Your task to perform on an android device: open app "Truecaller" Image 0: 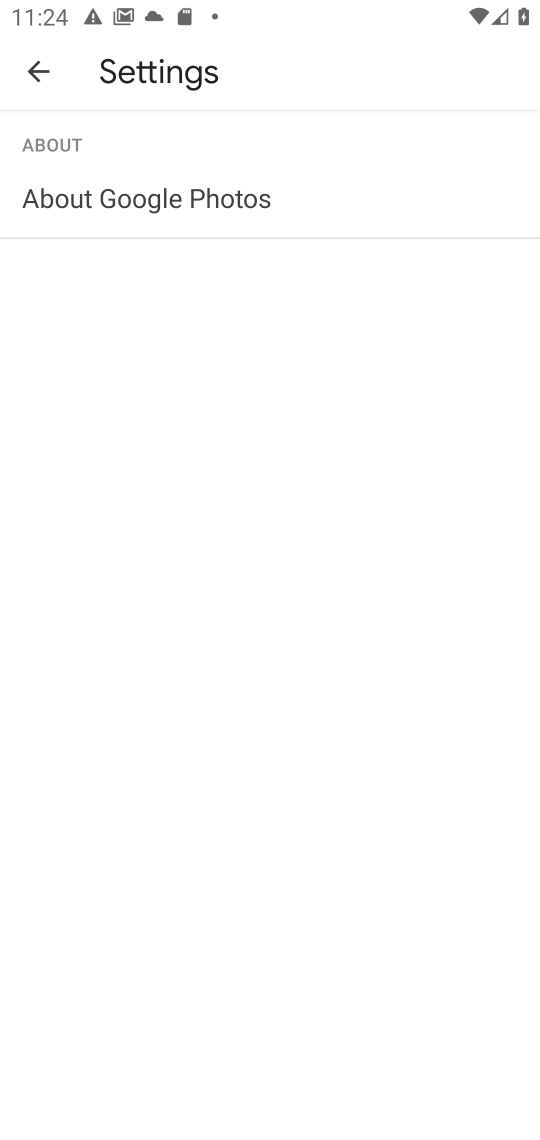
Step 0: press home button
Your task to perform on an android device: open app "Truecaller" Image 1: 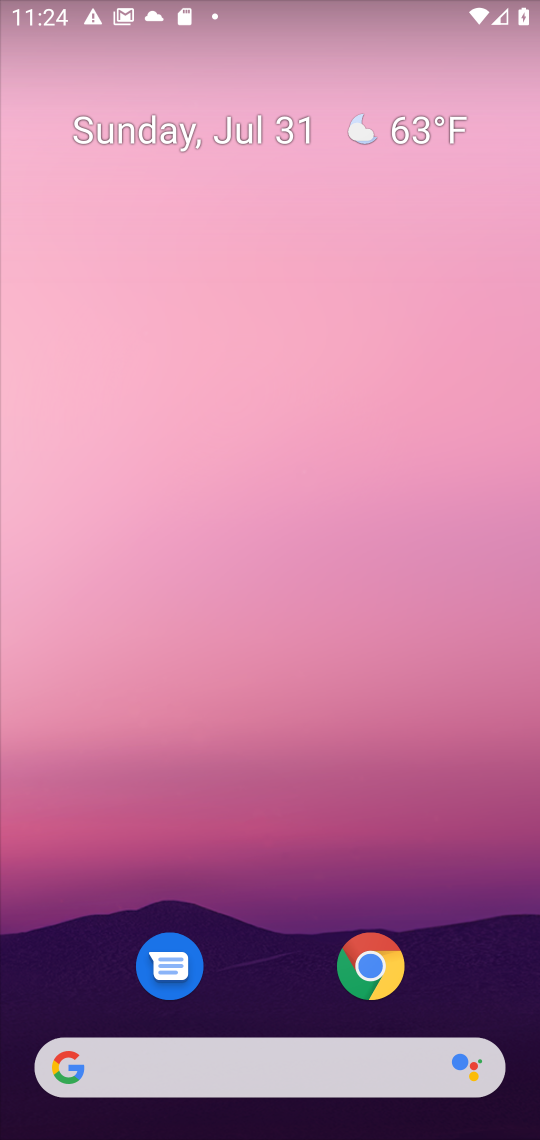
Step 1: drag from (246, 981) to (374, 4)
Your task to perform on an android device: open app "Truecaller" Image 2: 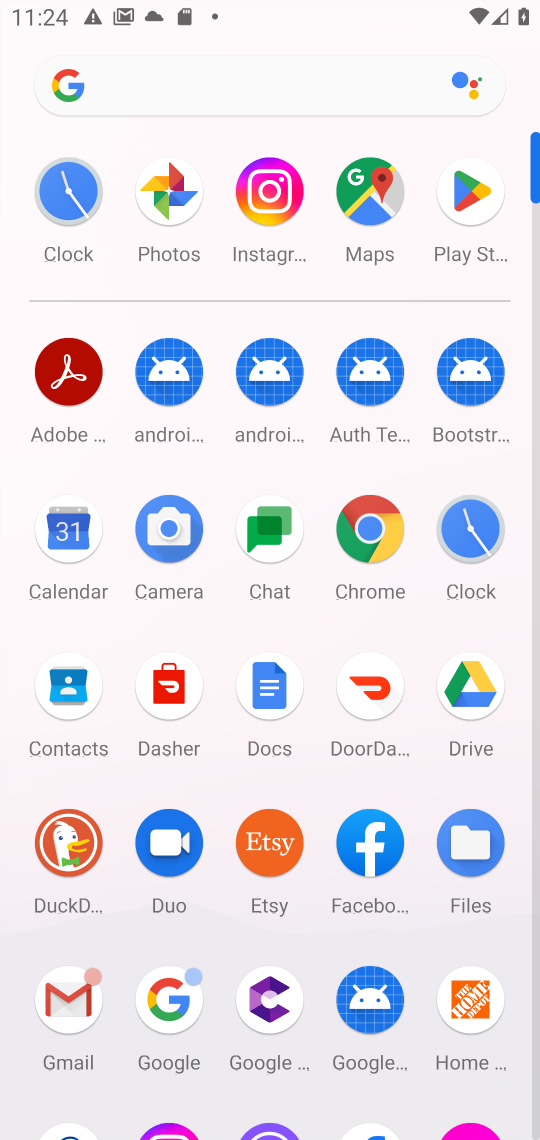
Step 2: click (488, 213)
Your task to perform on an android device: open app "Truecaller" Image 3: 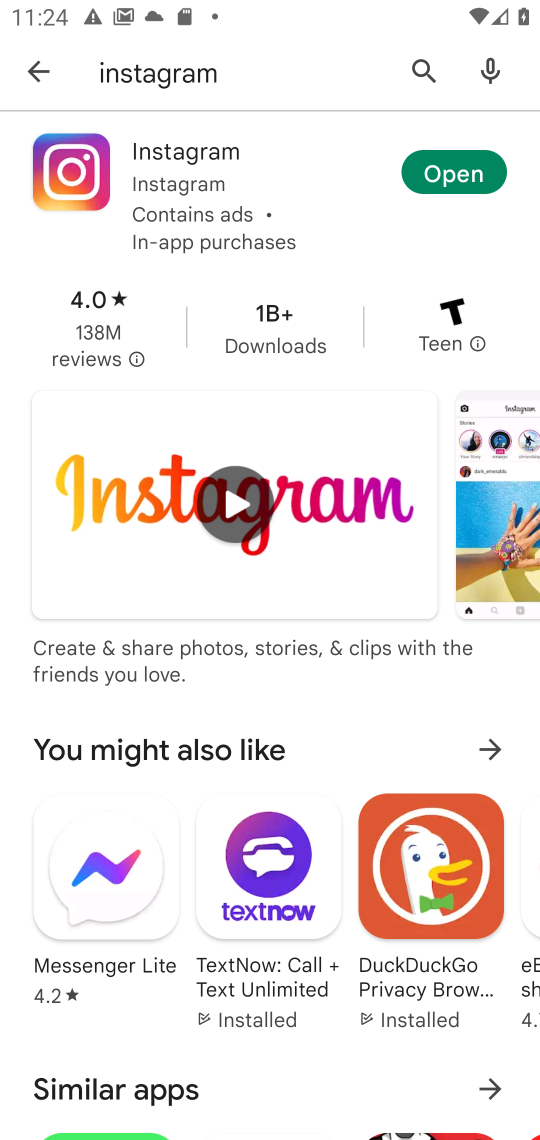
Step 3: click (213, 69)
Your task to perform on an android device: open app "Truecaller" Image 4: 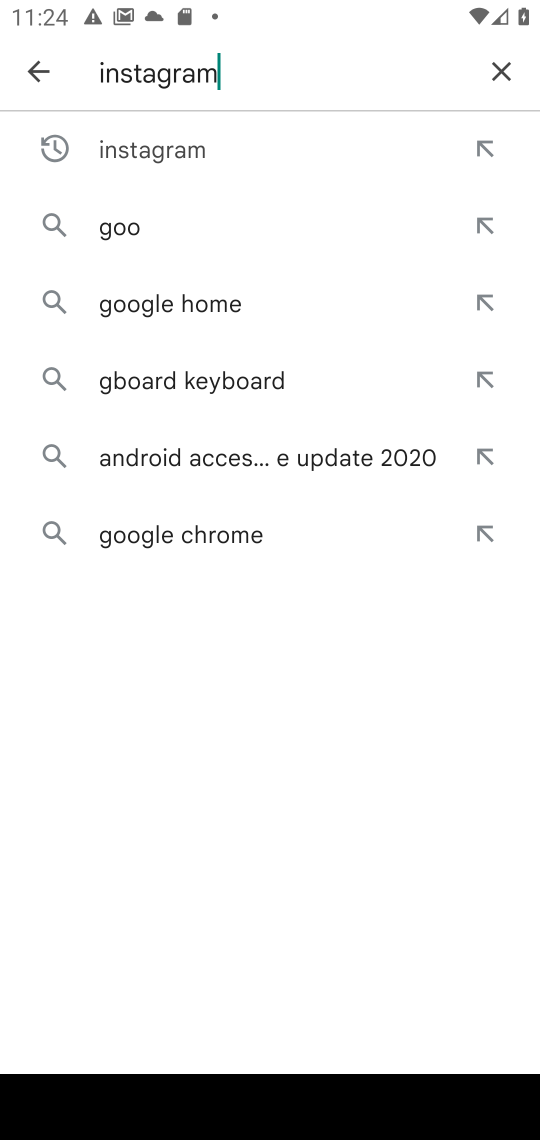
Step 4: click (504, 55)
Your task to perform on an android device: open app "Truecaller" Image 5: 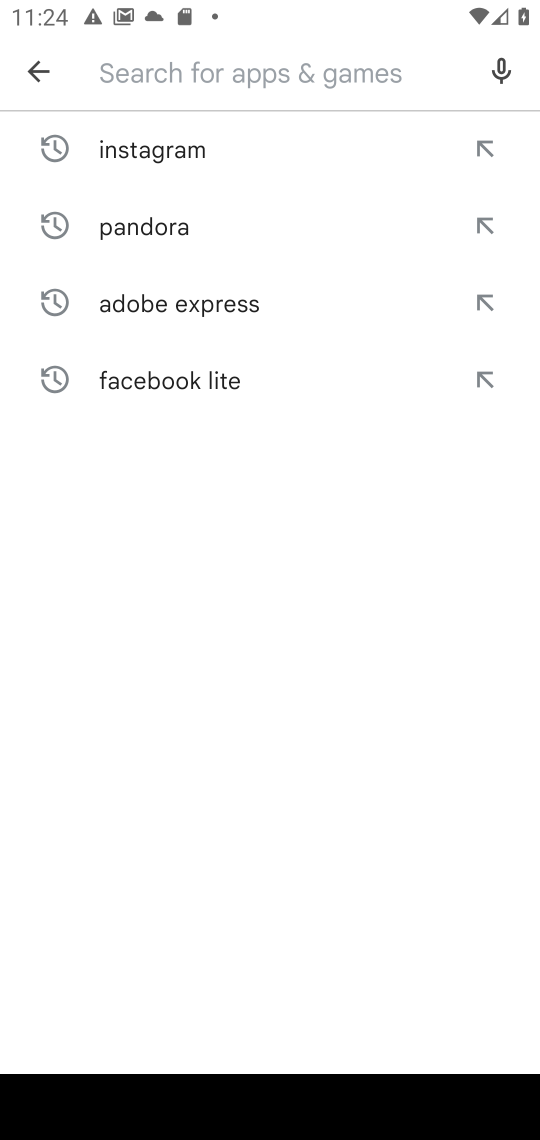
Step 5: type "truecaller"
Your task to perform on an android device: open app "Truecaller" Image 6: 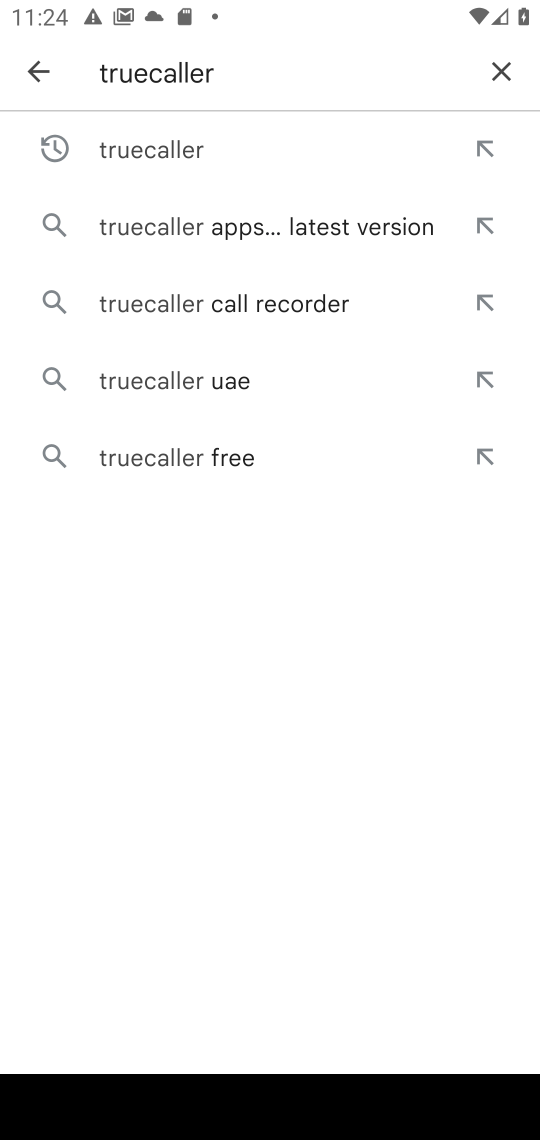
Step 6: click (158, 159)
Your task to perform on an android device: open app "Truecaller" Image 7: 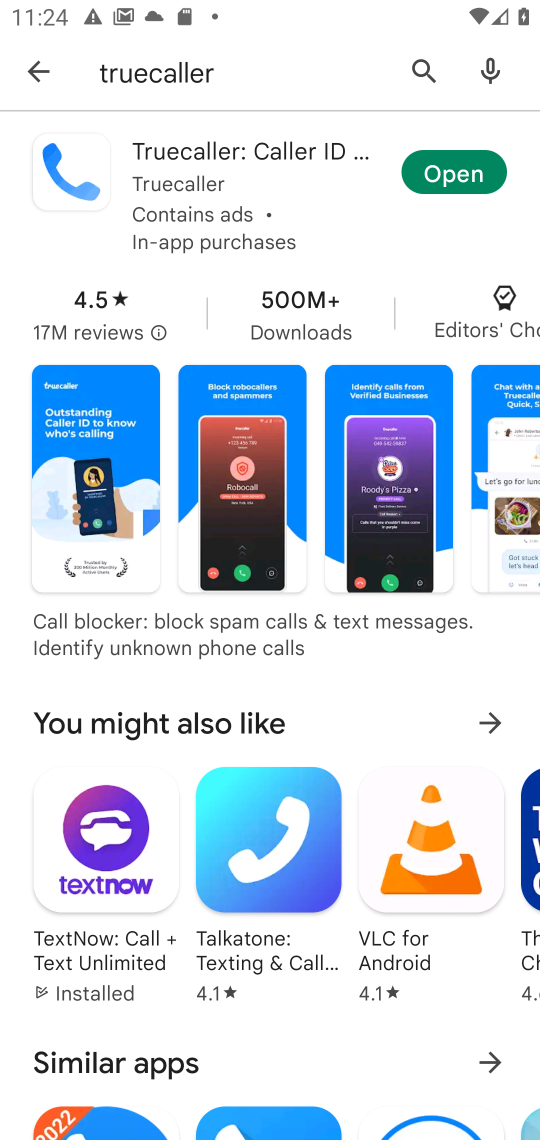
Step 7: click (444, 161)
Your task to perform on an android device: open app "Truecaller" Image 8: 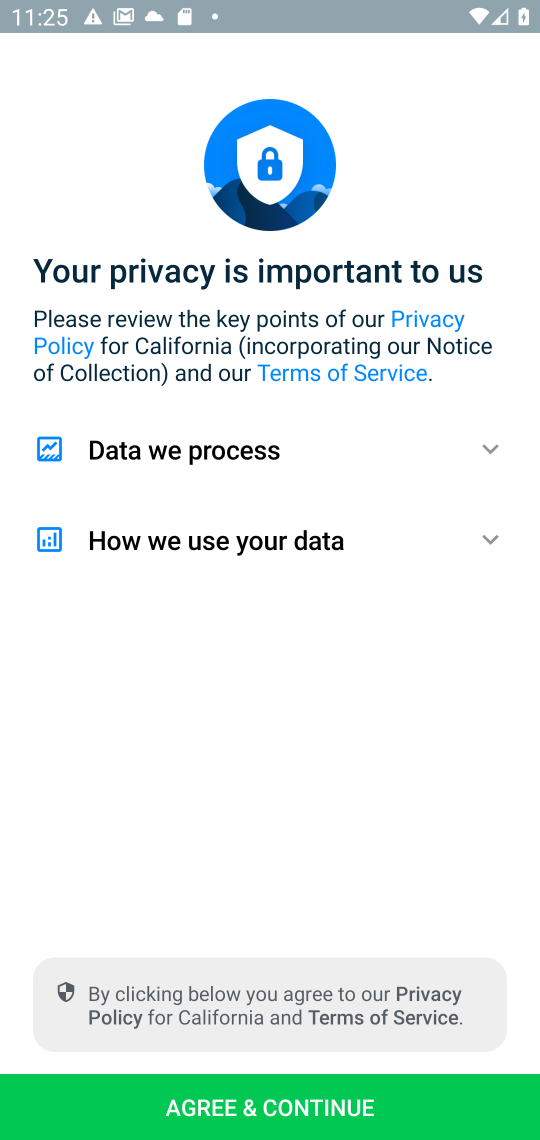
Step 8: click (285, 1120)
Your task to perform on an android device: open app "Truecaller" Image 9: 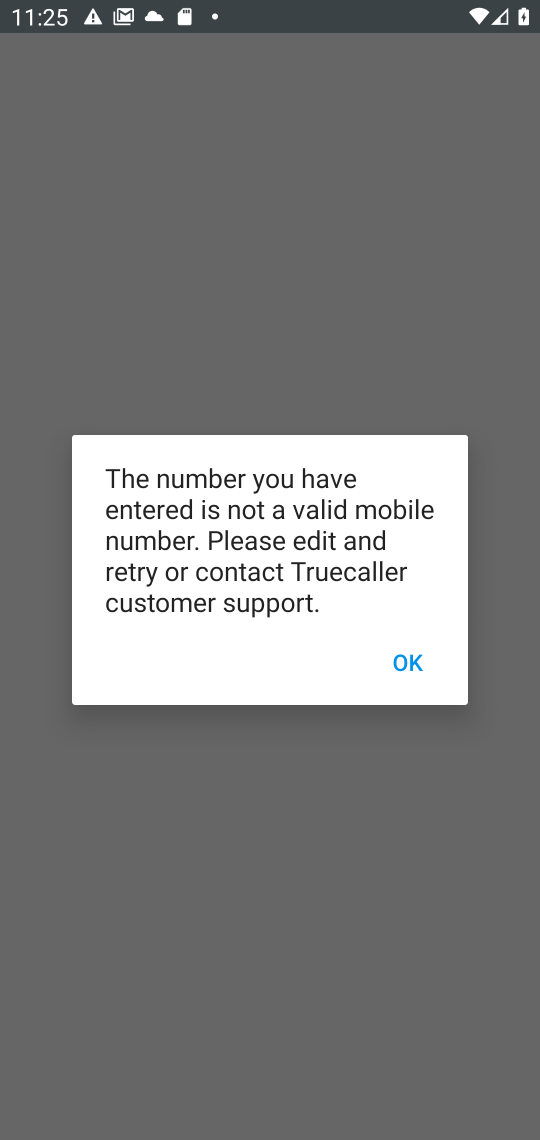
Step 9: click (408, 644)
Your task to perform on an android device: open app "Truecaller" Image 10: 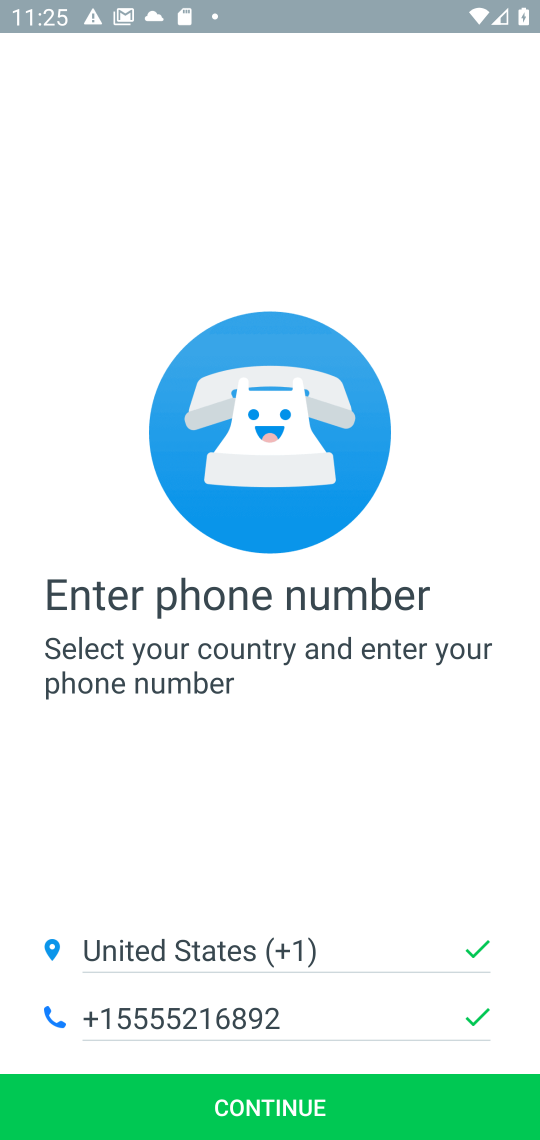
Step 10: click (272, 1109)
Your task to perform on an android device: open app "Truecaller" Image 11: 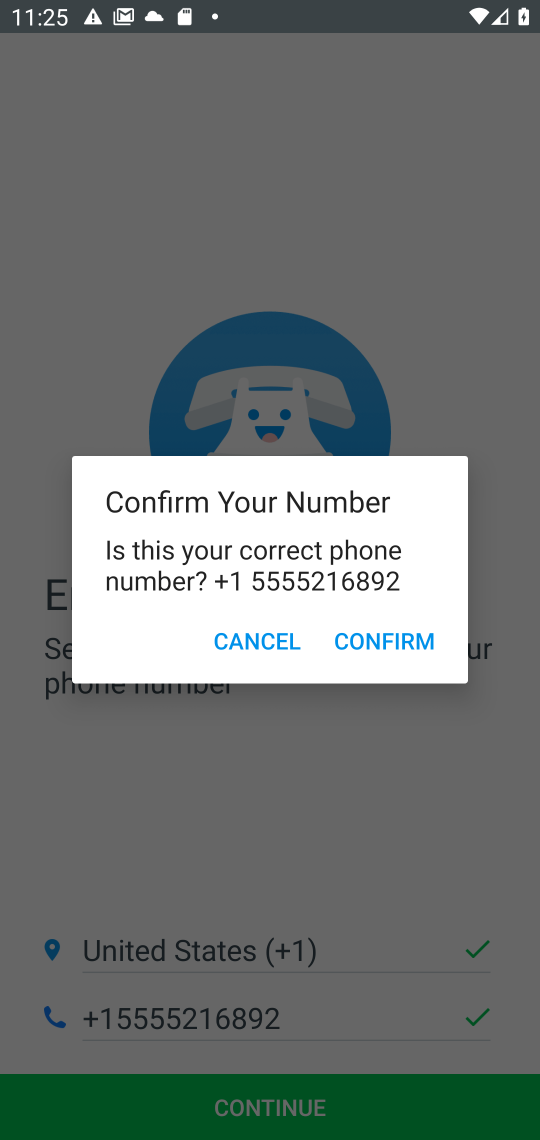
Step 11: click (364, 635)
Your task to perform on an android device: open app "Truecaller" Image 12: 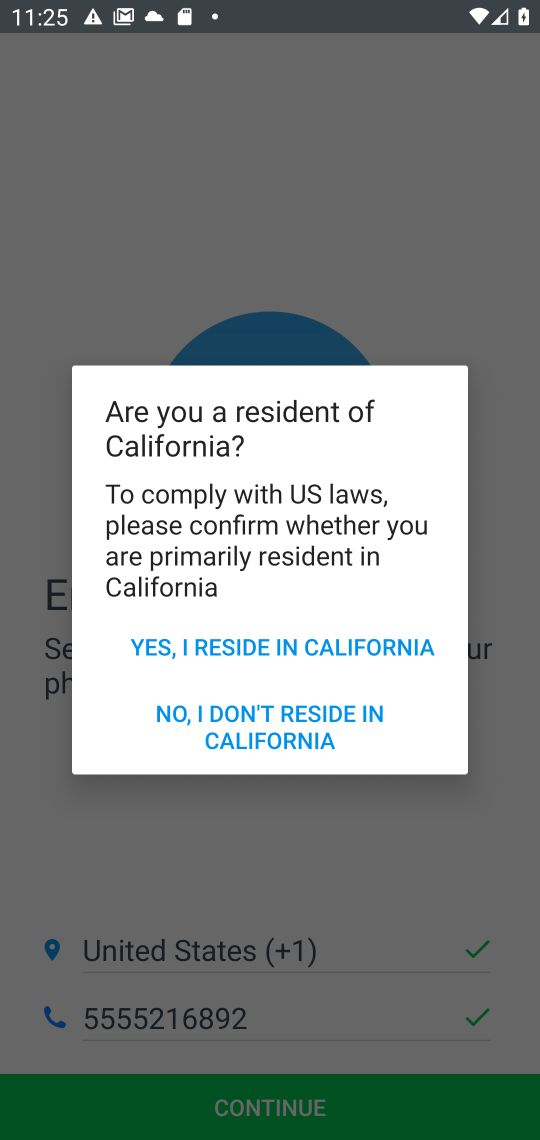
Step 12: click (304, 716)
Your task to perform on an android device: open app "Truecaller" Image 13: 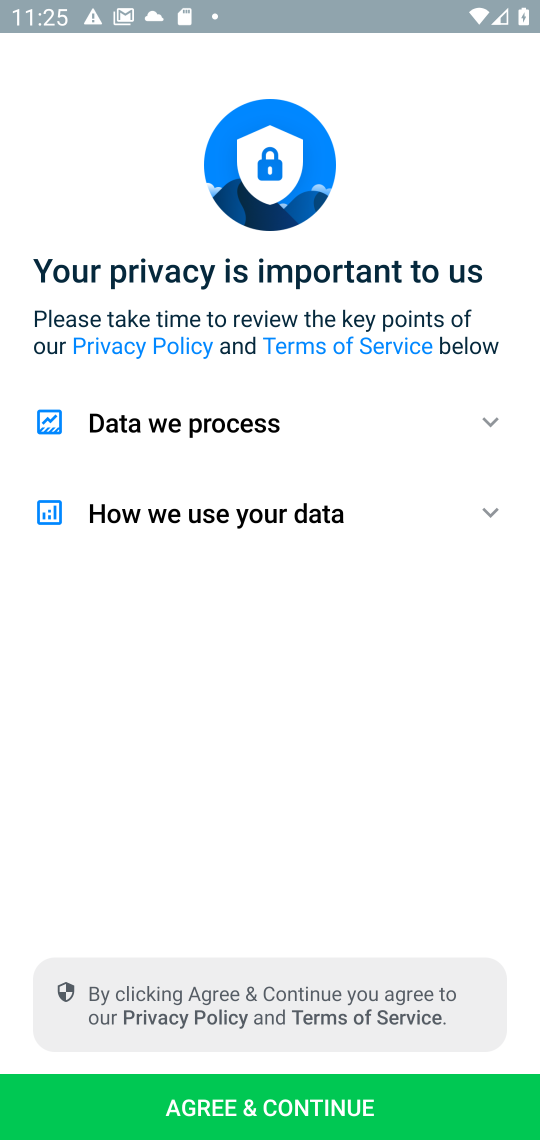
Step 13: task complete